Your task to perform on an android device: refresh tabs in the chrome app Image 0: 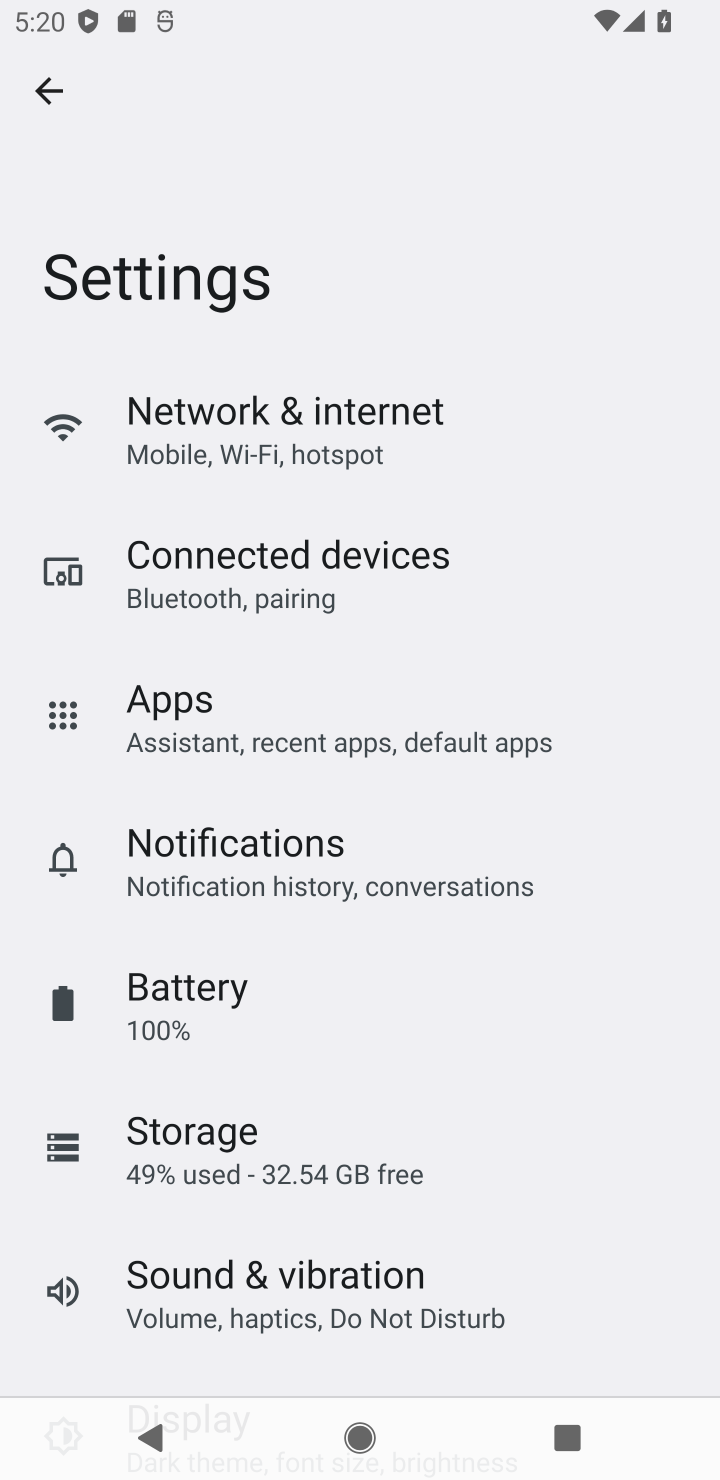
Step 0: press home button
Your task to perform on an android device: refresh tabs in the chrome app Image 1: 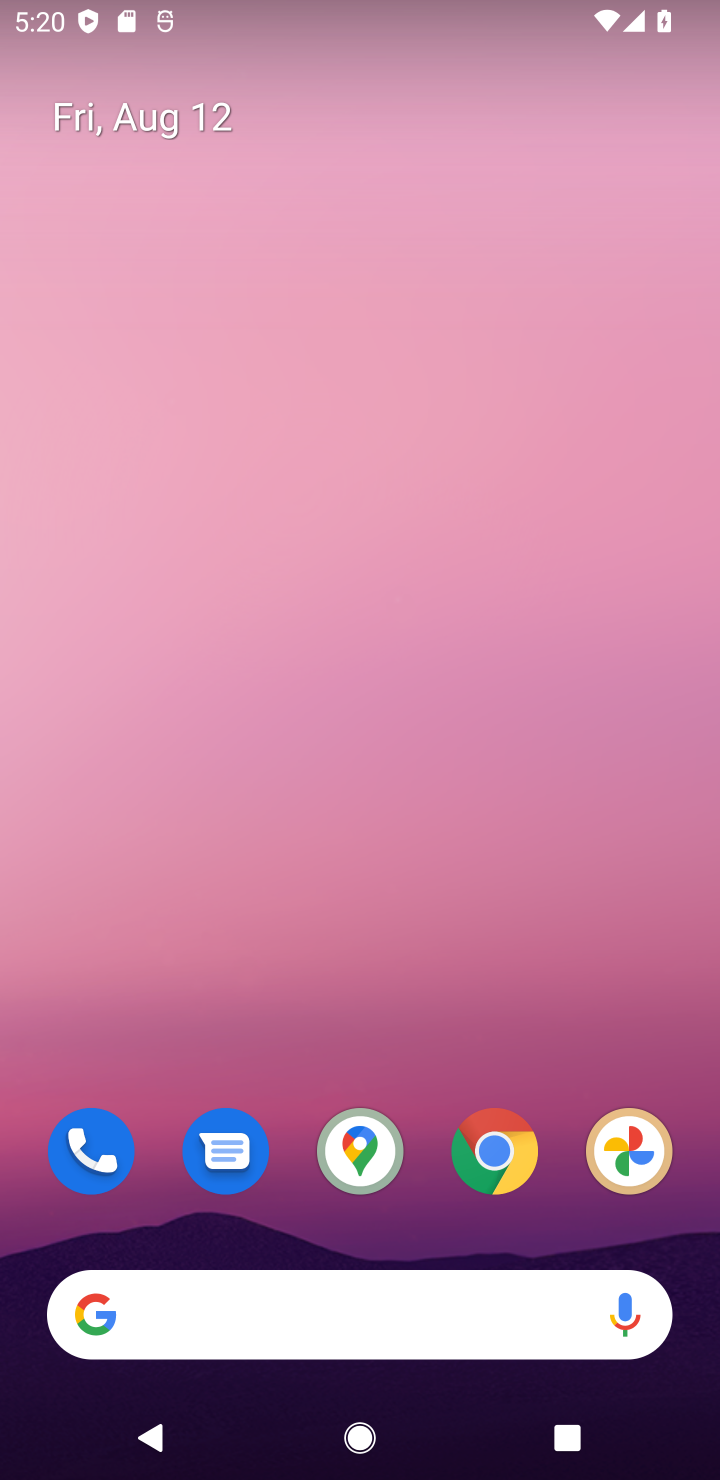
Step 1: drag from (441, 1185) to (567, 115)
Your task to perform on an android device: refresh tabs in the chrome app Image 2: 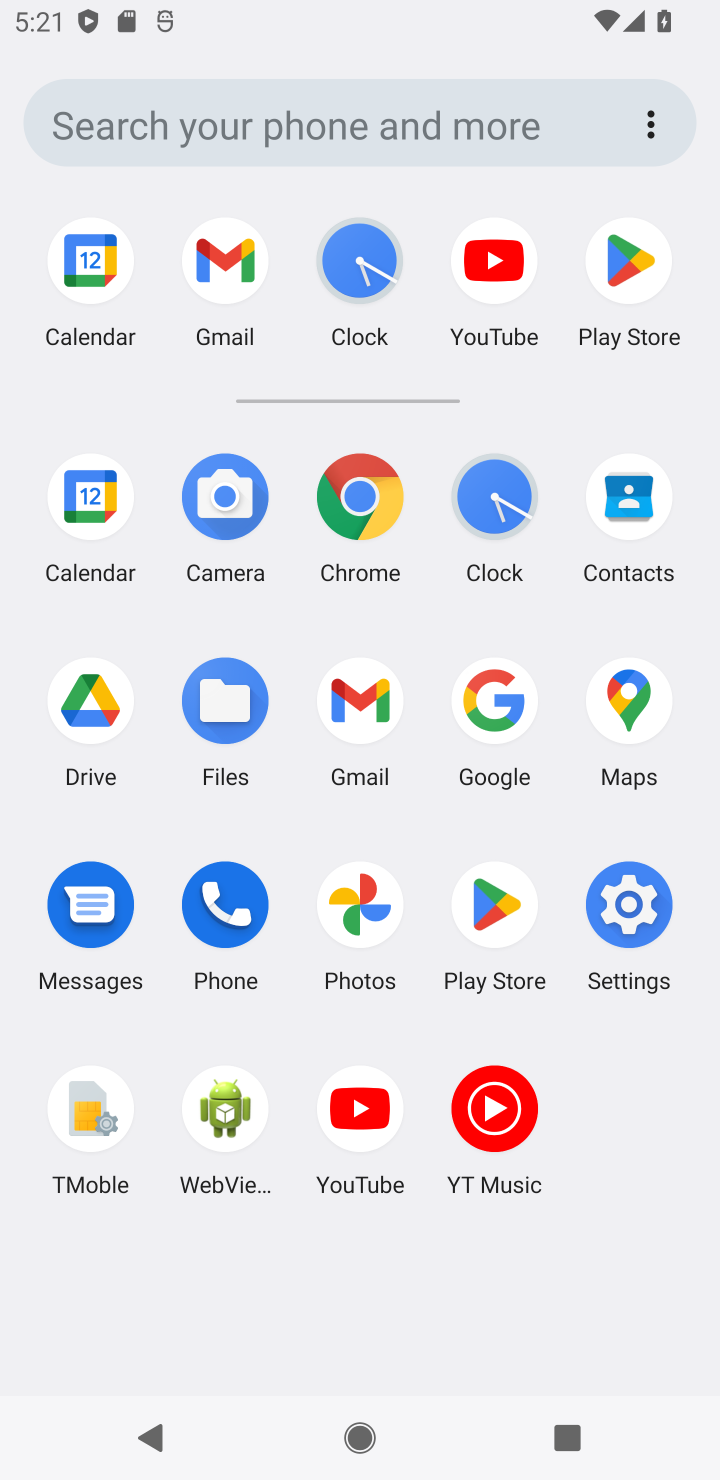
Step 2: click (362, 498)
Your task to perform on an android device: refresh tabs in the chrome app Image 3: 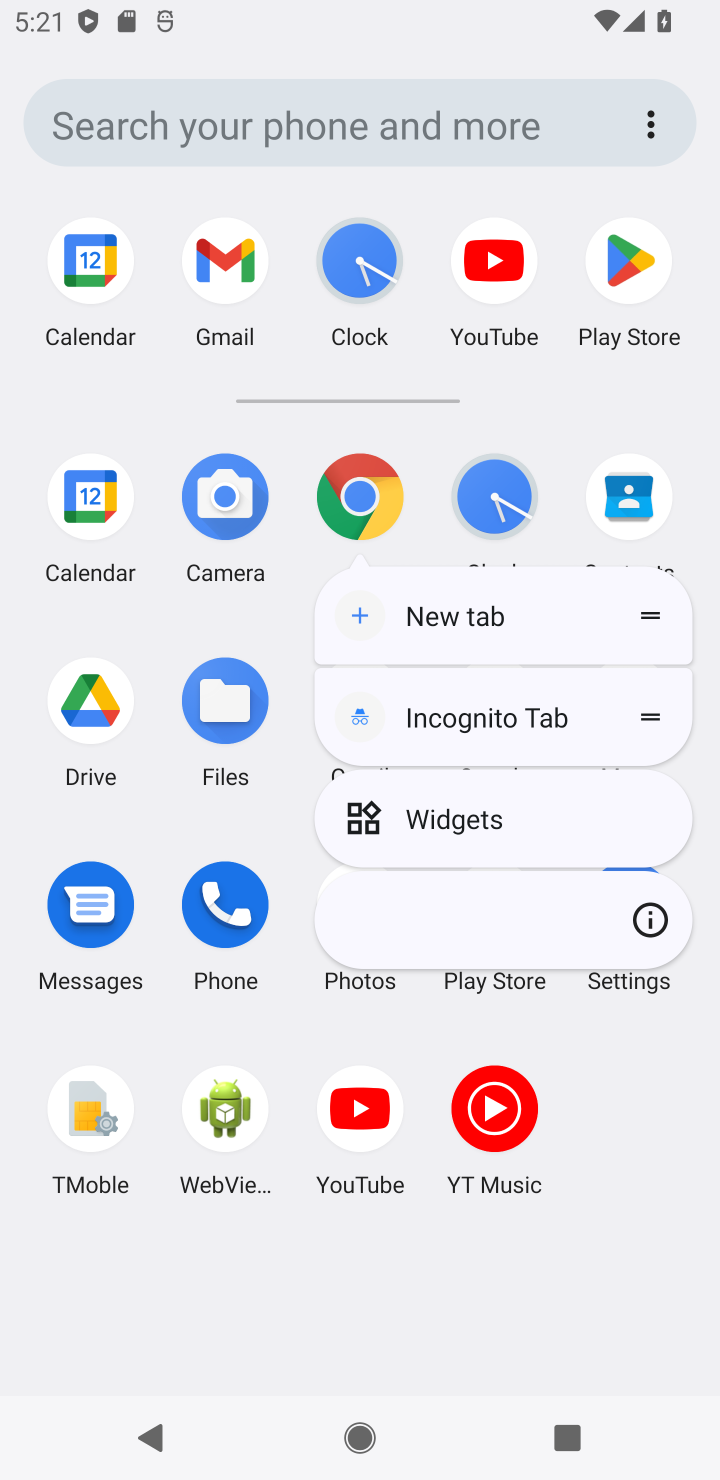
Step 3: click (333, 432)
Your task to perform on an android device: refresh tabs in the chrome app Image 4: 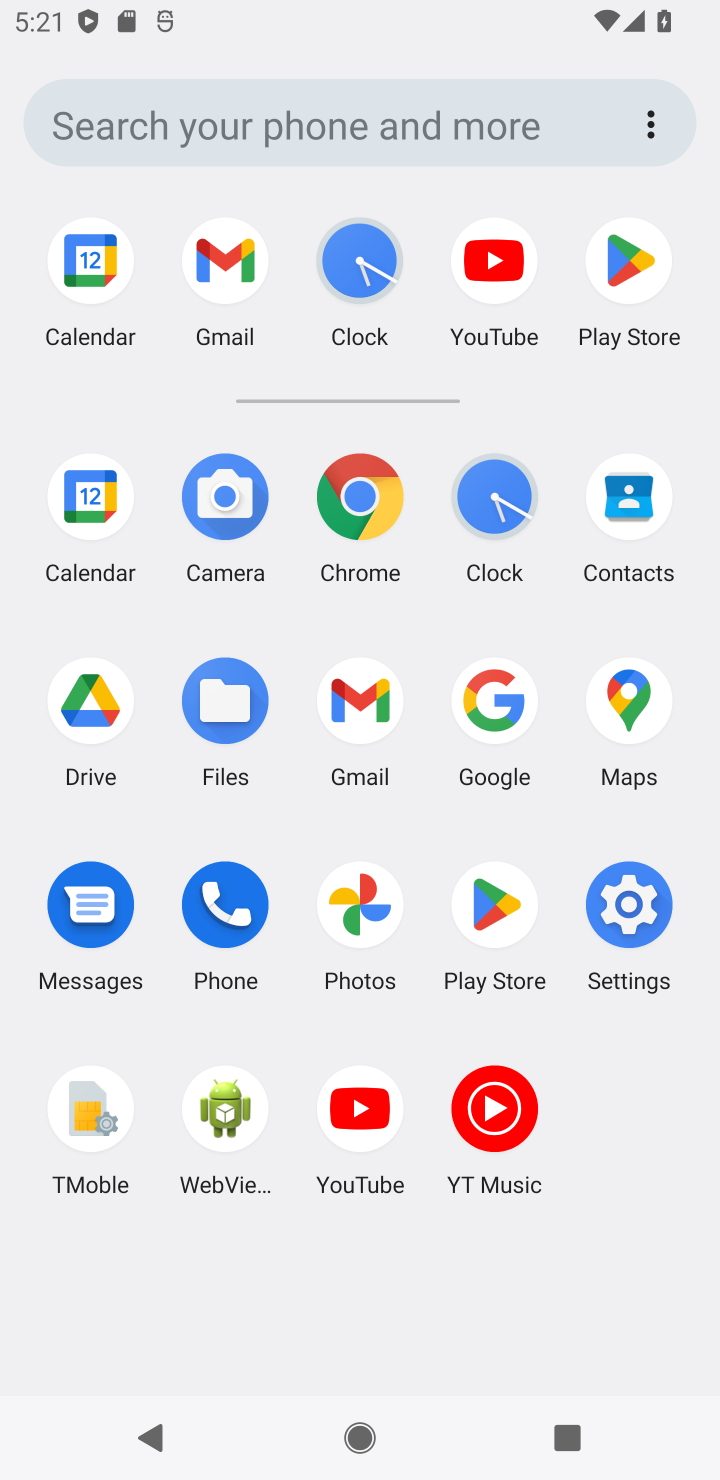
Step 4: click (369, 483)
Your task to perform on an android device: refresh tabs in the chrome app Image 5: 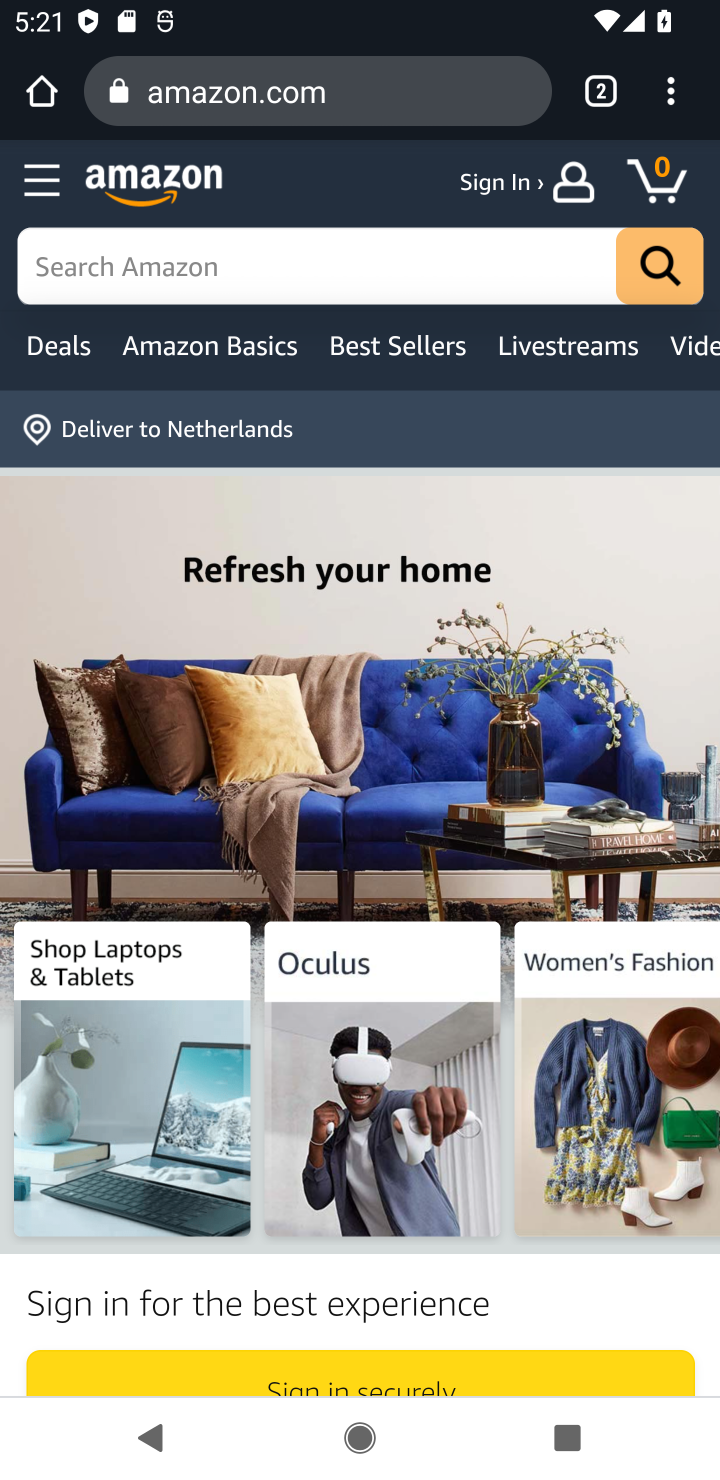
Step 5: click (672, 89)
Your task to perform on an android device: refresh tabs in the chrome app Image 6: 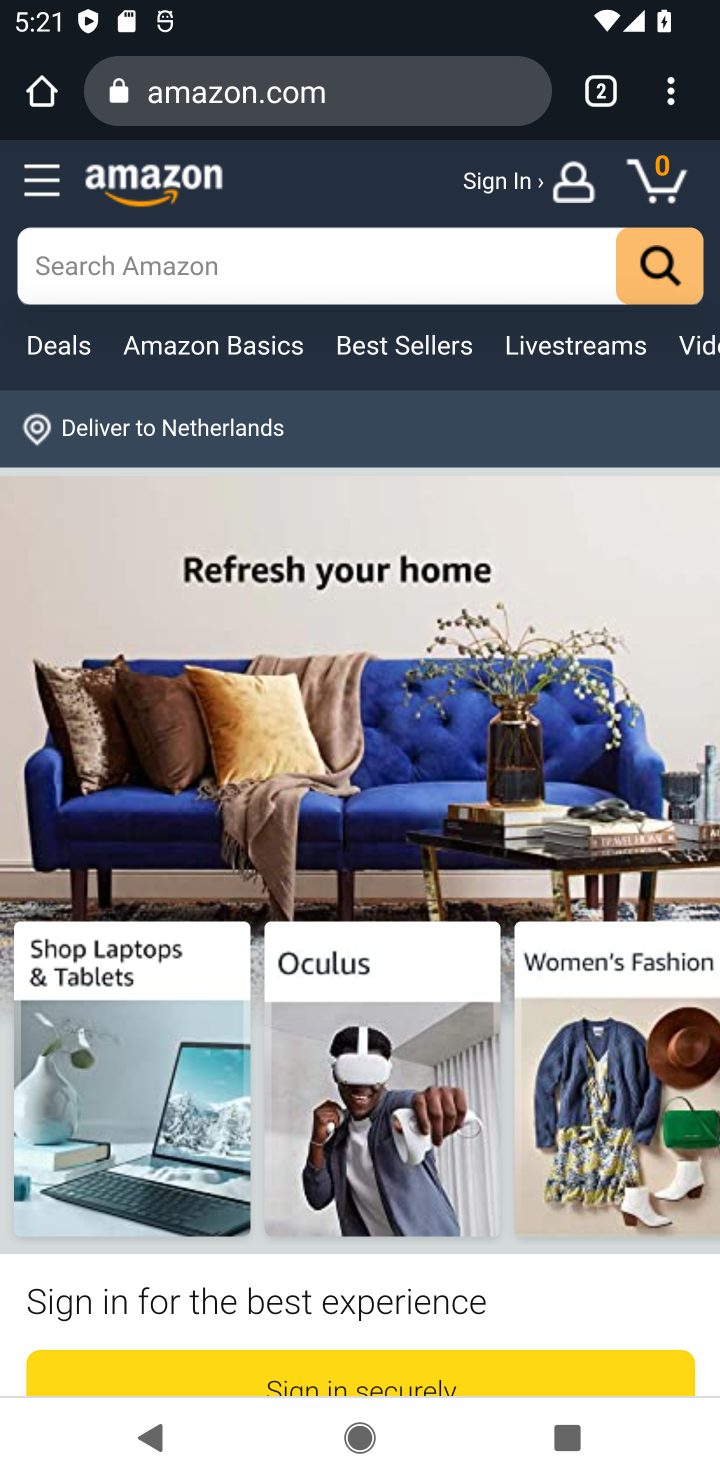
Step 6: task complete